Your task to perform on an android device: turn on the 24-hour format for clock Image 0: 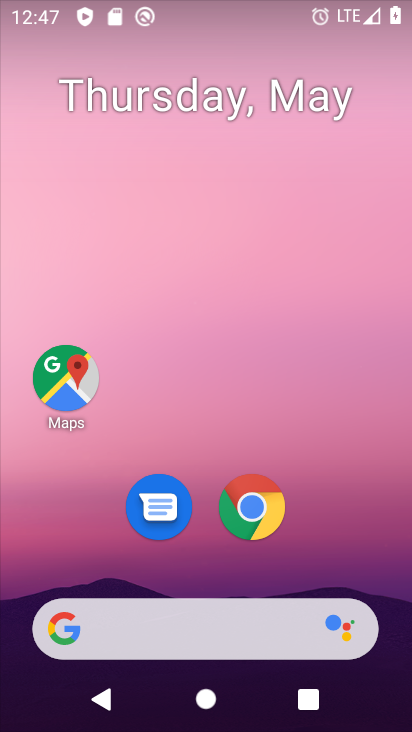
Step 0: drag from (199, 585) to (257, 196)
Your task to perform on an android device: turn on the 24-hour format for clock Image 1: 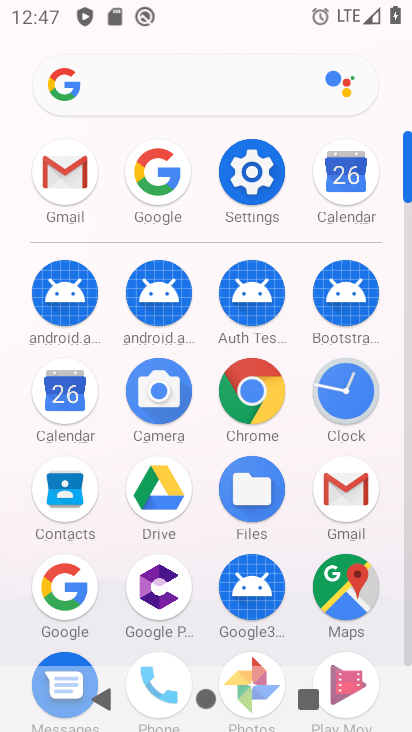
Step 1: click (341, 374)
Your task to perform on an android device: turn on the 24-hour format for clock Image 2: 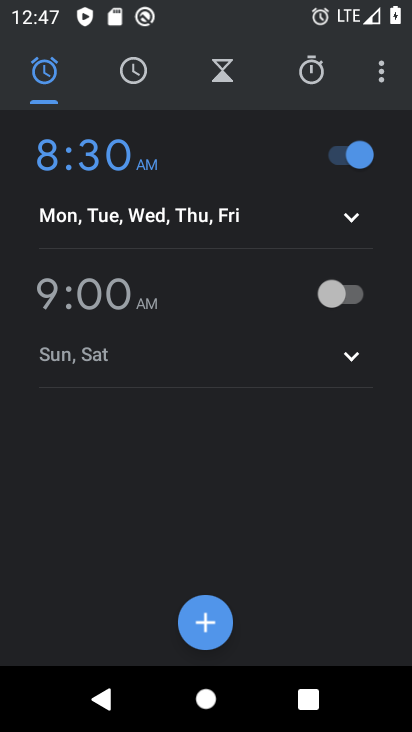
Step 2: click (383, 66)
Your task to perform on an android device: turn on the 24-hour format for clock Image 3: 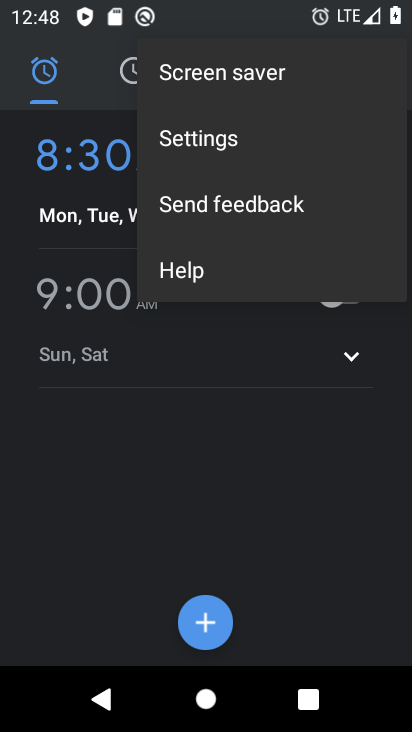
Step 3: click (225, 139)
Your task to perform on an android device: turn on the 24-hour format for clock Image 4: 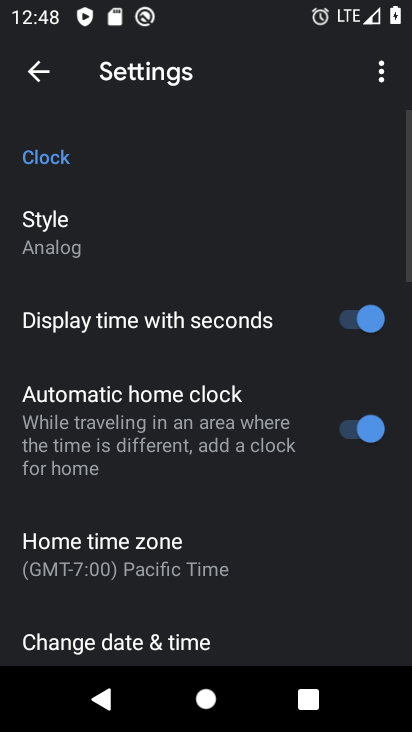
Step 4: click (131, 638)
Your task to perform on an android device: turn on the 24-hour format for clock Image 5: 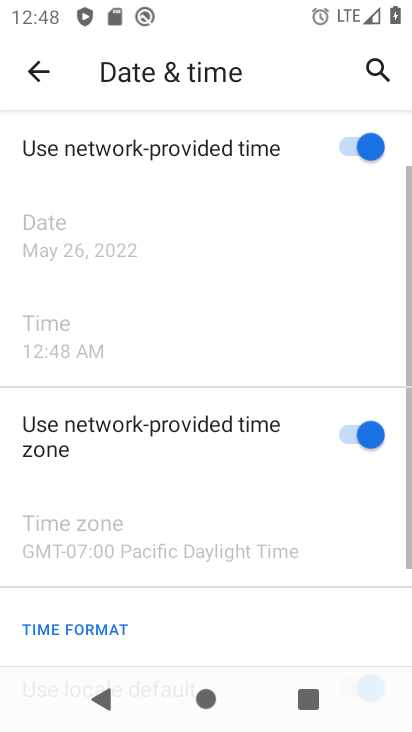
Step 5: drag from (180, 584) to (281, 249)
Your task to perform on an android device: turn on the 24-hour format for clock Image 6: 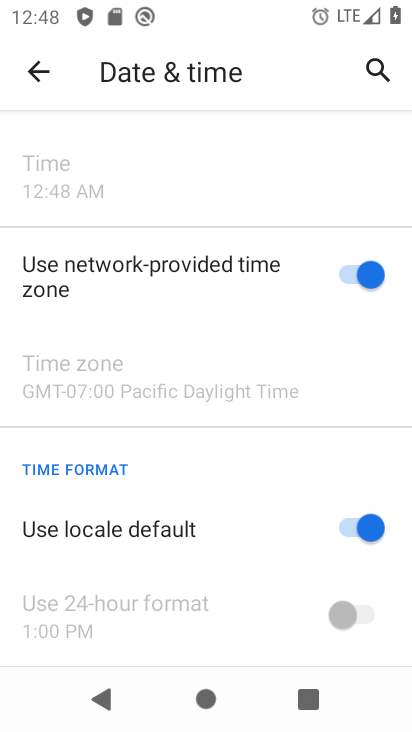
Step 6: click (340, 533)
Your task to perform on an android device: turn on the 24-hour format for clock Image 7: 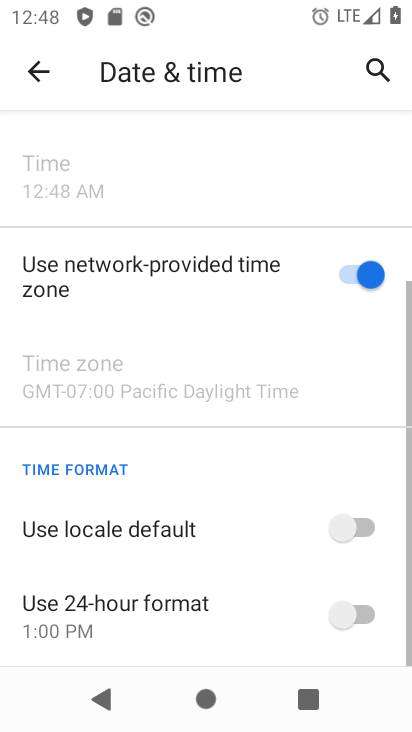
Step 7: click (359, 608)
Your task to perform on an android device: turn on the 24-hour format for clock Image 8: 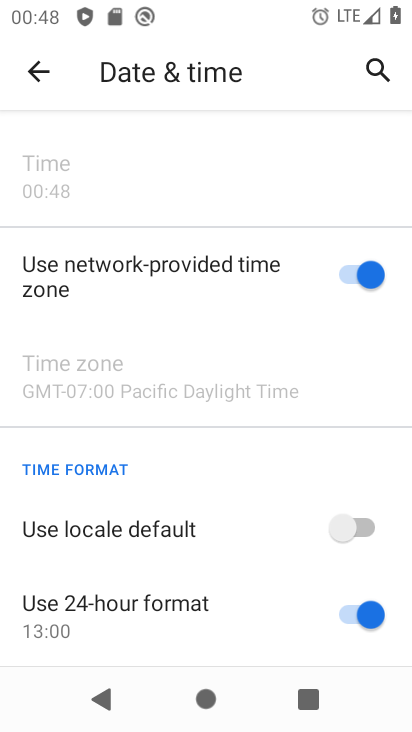
Step 8: task complete